Your task to perform on an android device: show emergency info Image 0: 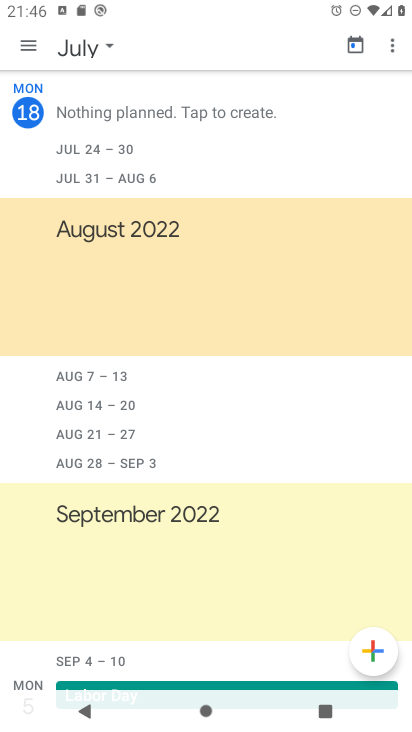
Step 0: press home button
Your task to perform on an android device: show emergency info Image 1: 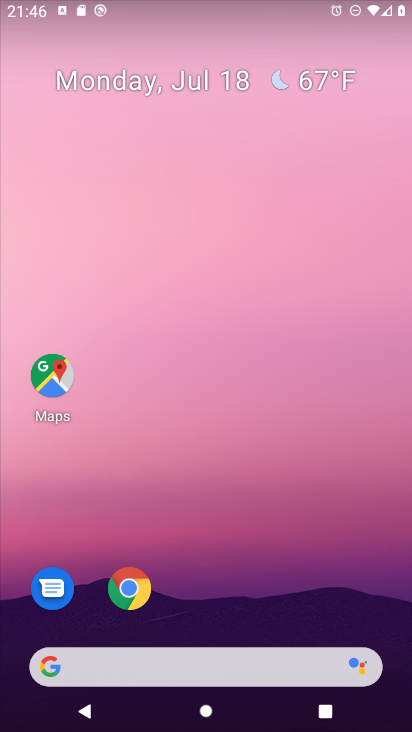
Step 1: drag from (386, 623) to (319, 44)
Your task to perform on an android device: show emergency info Image 2: 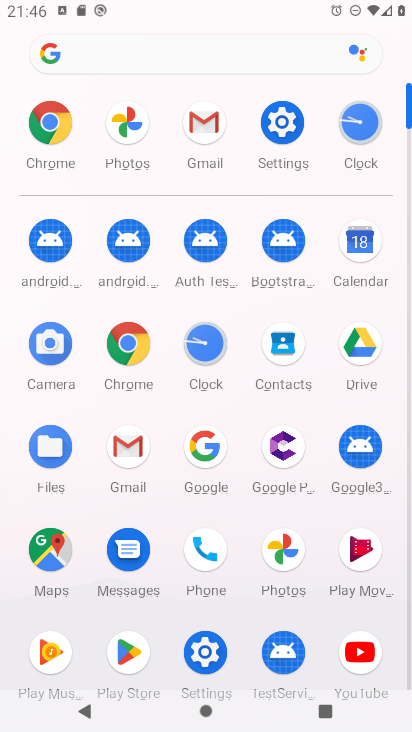
Step 2: click (204, 654)
Your task to perform on an android device: show emergency info Image 3: 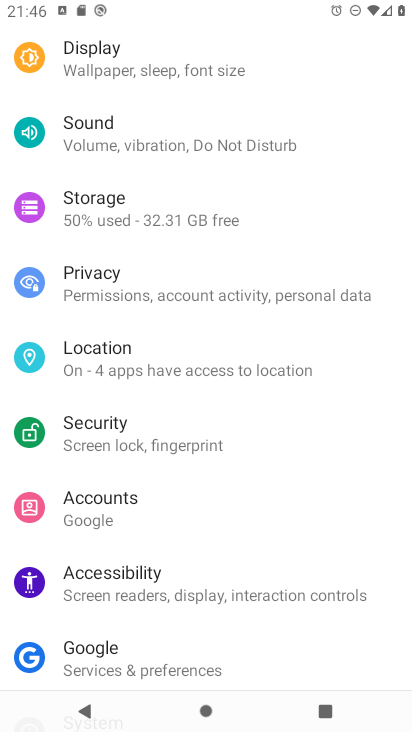
Step 3: drag from (335, 611) to (326, 252)
Your task to perform on an android device: show emergency info Image 4: 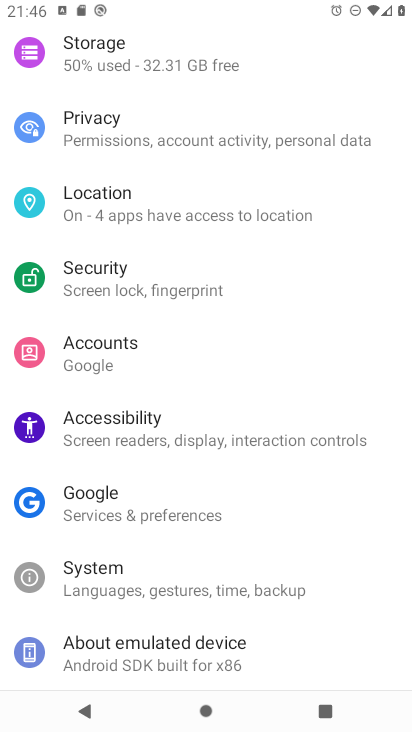
Step 4: click (105, 647)
Your task to perform on an android device: show emergency info Image 5: 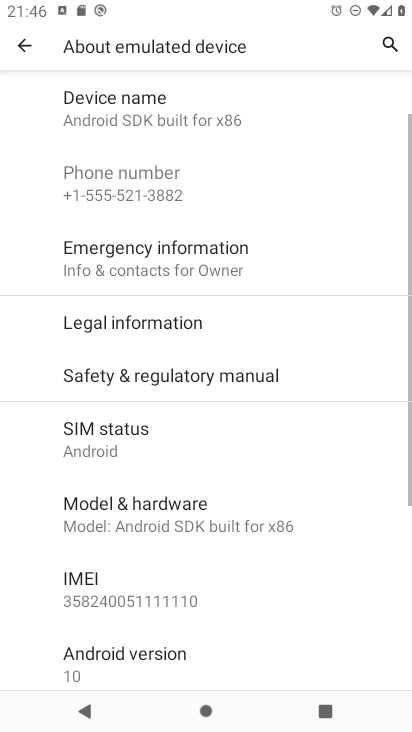
Step 5: click (123, 251)
Your task to perform on an android device: show emergency info Image 6: 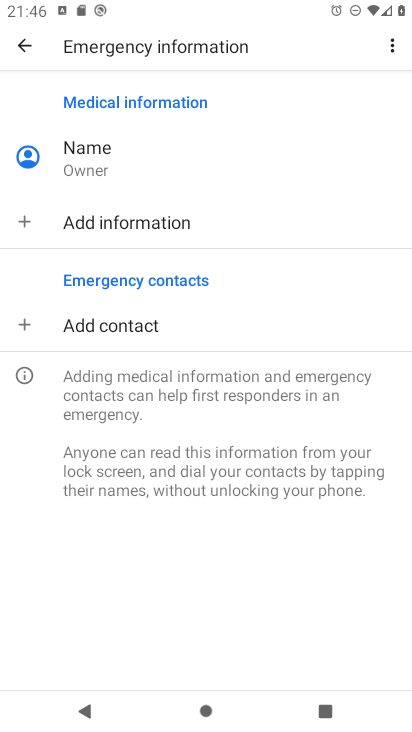
Step 6: task complete